Your task to perform on an android device: Search for sushi restaurants on Maps Image 0: 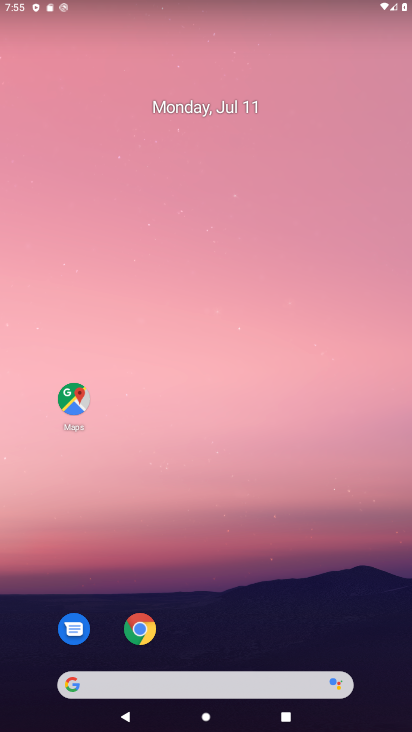
Step 0: drag from (218, 647) to (225, 87)
Your task to perform on an android device: Search for sushi restaurants on Maps Image 1: 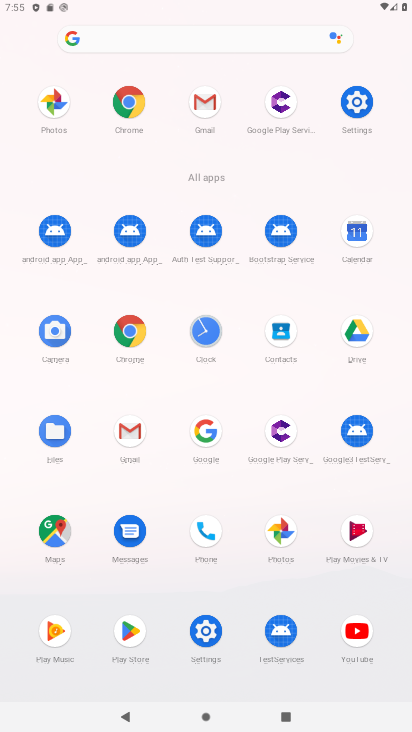
Step 1: click (51, 527)
Your task to perform on an android device: Search for sushi restaurants on Maps Image 2: 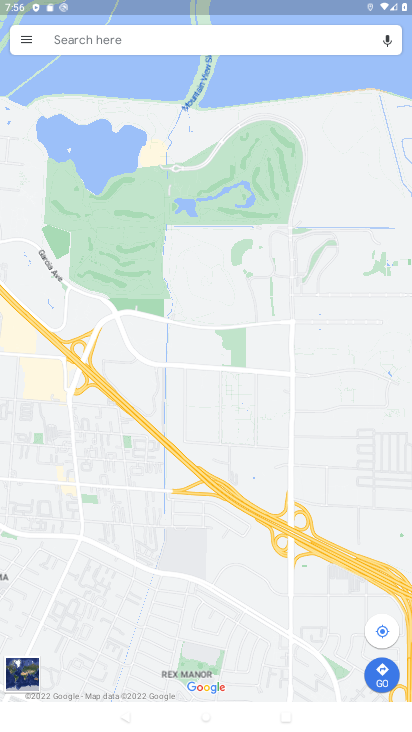
Step 2: click (180, 46)
Your task to perform on an android device: Search for sushi restaurants on Maps Image 3: 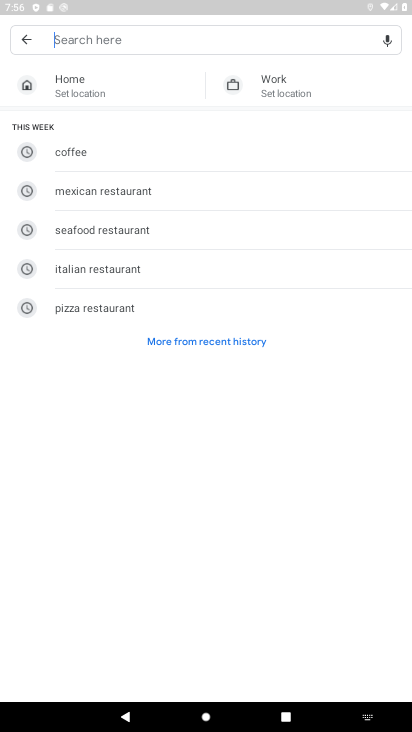
Step 3: type "sushi restaurent"
Your task to perform on an android device: Search for sushi restaurants on Maps Image 4: 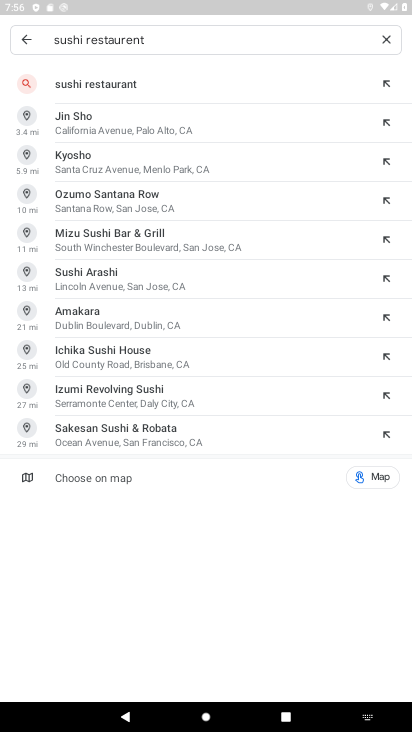
Step 4: click (225, 81)
Your task to perform on an android device: Search for sushi restaurants on Maps Image 5: 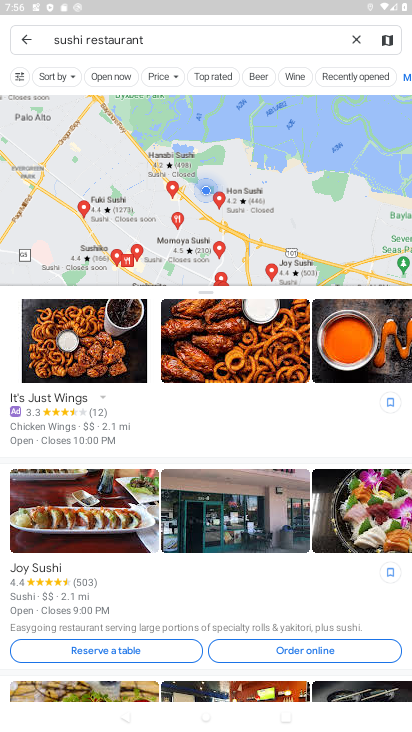
Step 5: task complete